Your task to perform on an android device: turn on airplane mode Image 0: 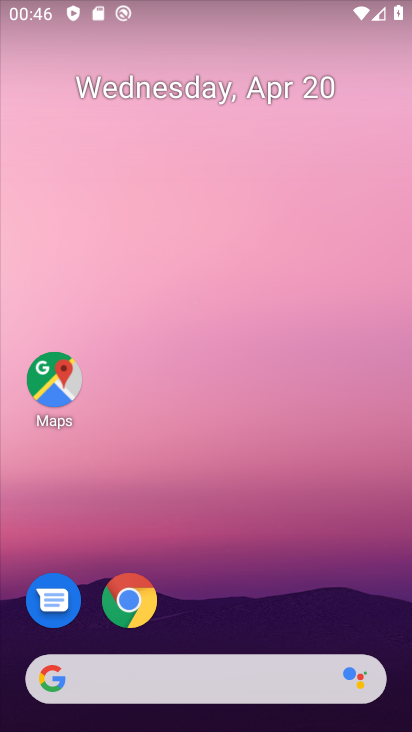
Step 0: drag from (283, 585) to (260, 0)
Your task to perform on an android device: turn on airplane mode Image 1: 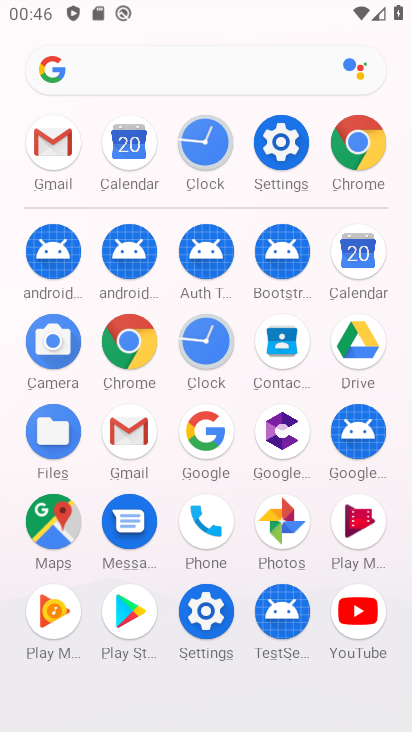
Step 1: click (210, 606)
Your task to perform on an android device: turn on airplane mode Image 2: 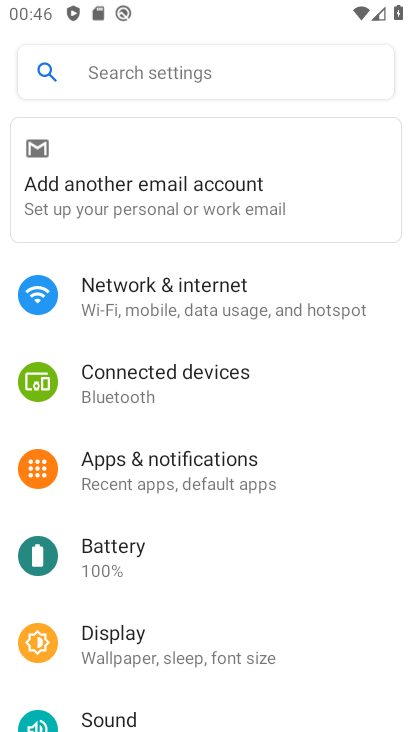
Step 2: click (191, 304)
Your task to perform on an android device: turn on airplane mode Image 3: 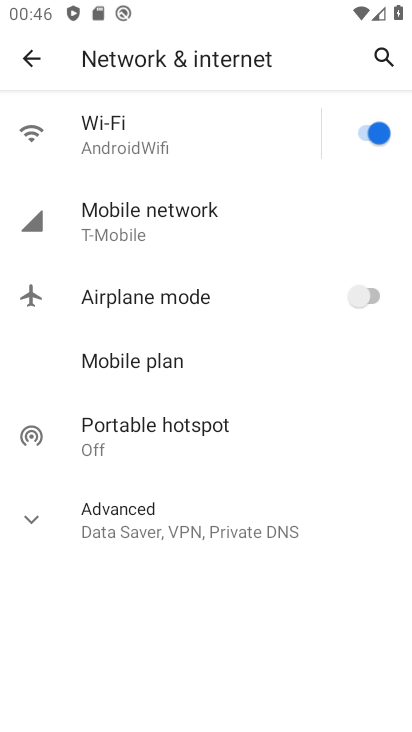
Step 3: click (370, 295)
Your task to perform on an android device: turn on airplane mode Image 4: 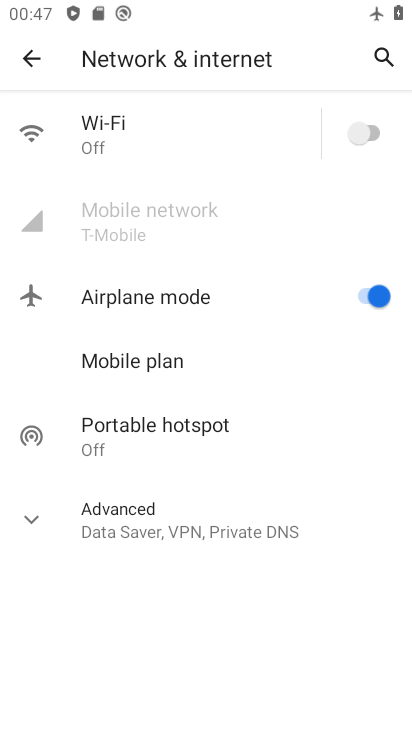
Step 4: task complete